Your task to perform on an android device: manage bookmarks in the chrome app Image 0: 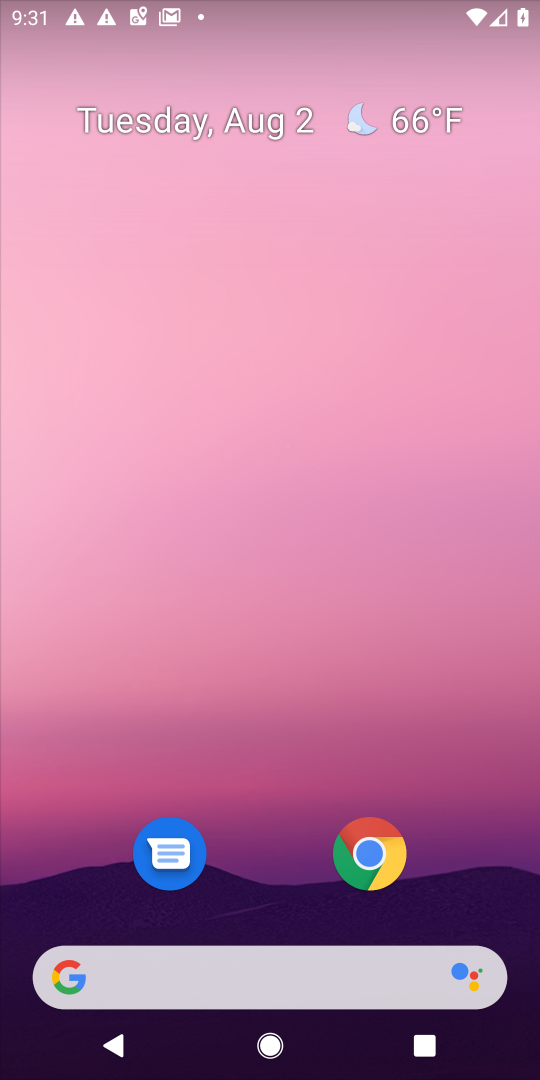
Step 0: press back button
Your task to perform on an android device: manage bookmarks in the chrome app Image 1: 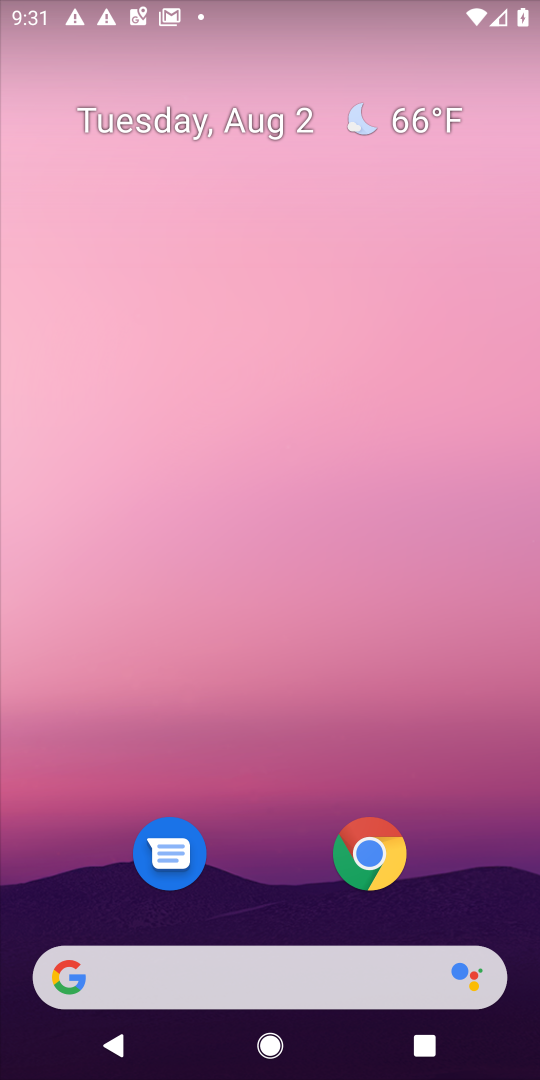
Step 1: drag from (287, 887) to (258, 37)
Your task to perform on an android device: manage bookmarks in the chrome app Image 2: 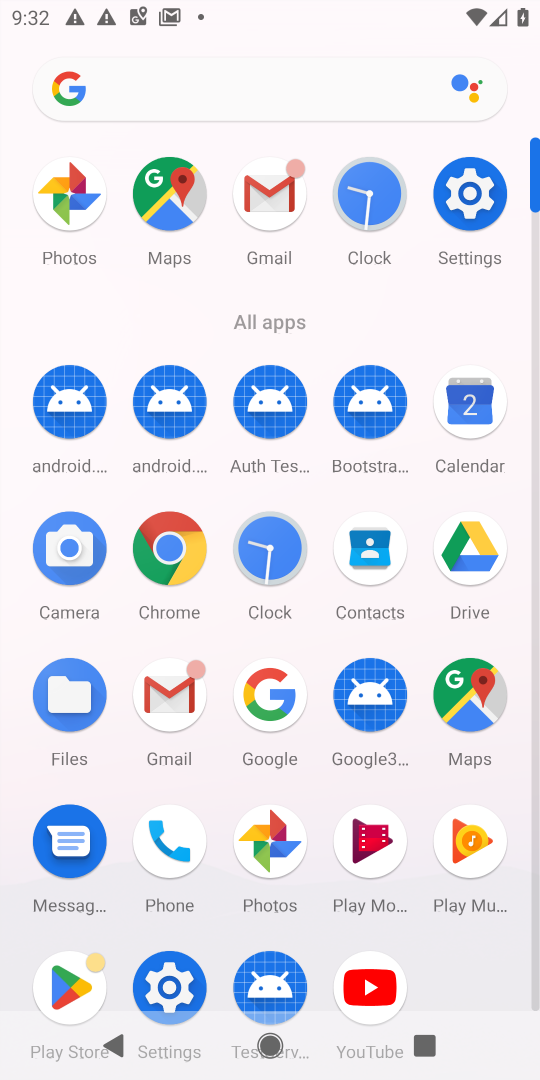
Step 2: click (153, 566)
Your task to perform on an android device: manage bookmarks in the chrome app Image 3: 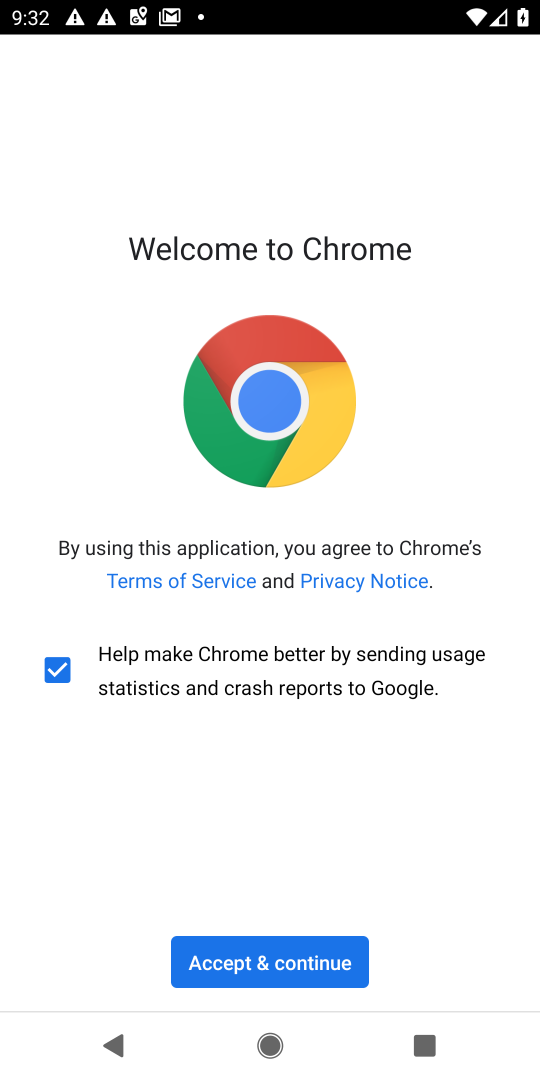
Step 3: click (330, 957)
Your task to perform on an android device: manage bookmarks in the chrome app Image 4: 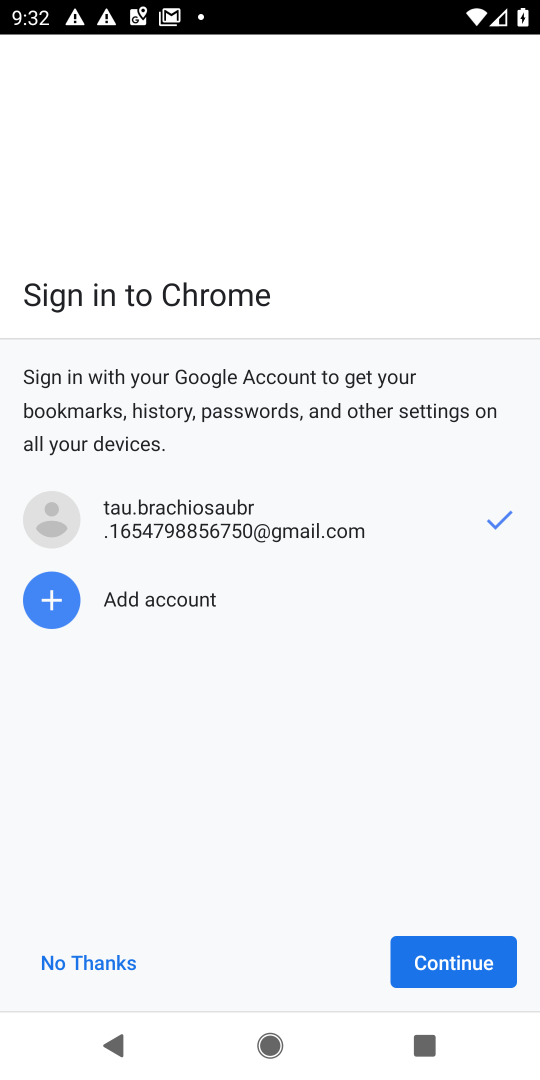
Step 4: click (420, 956)
Your task to perform on an android device: manage bookmarks in the chrome app Image 5: 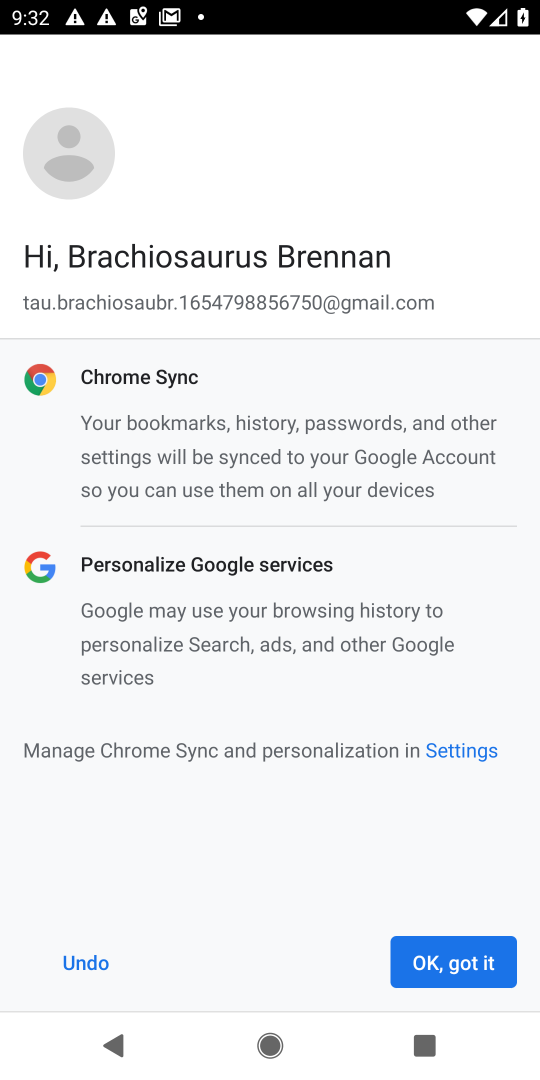
Step 5: click (495, 953)
Your task to perform on an android device: manage bookmarks in the chrome app Image 6: 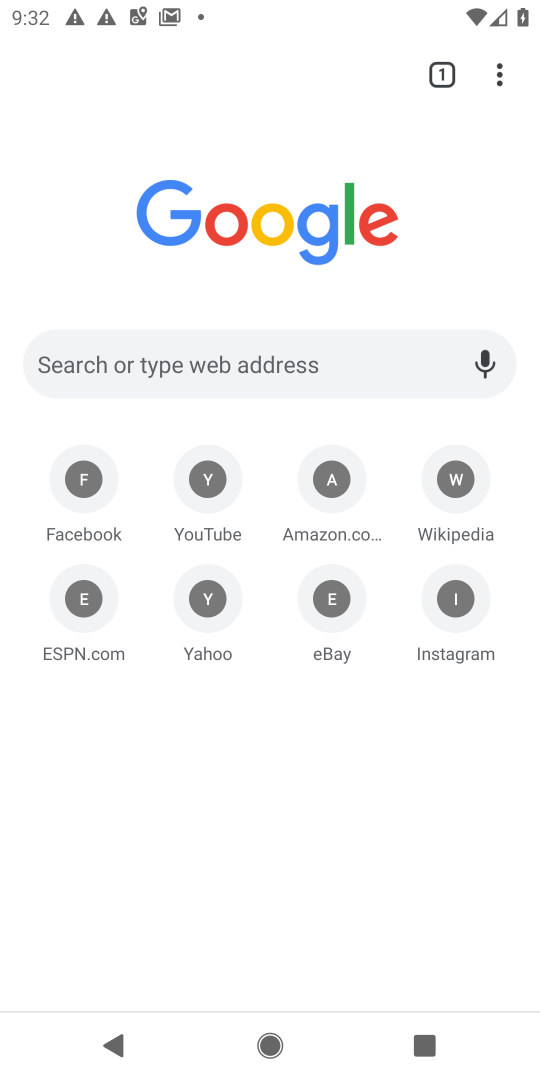
Step 6: drag from (494, 80) to (242, 282)
Your task to perform on an android device: manage bookmarks in the chrome app Image 7: 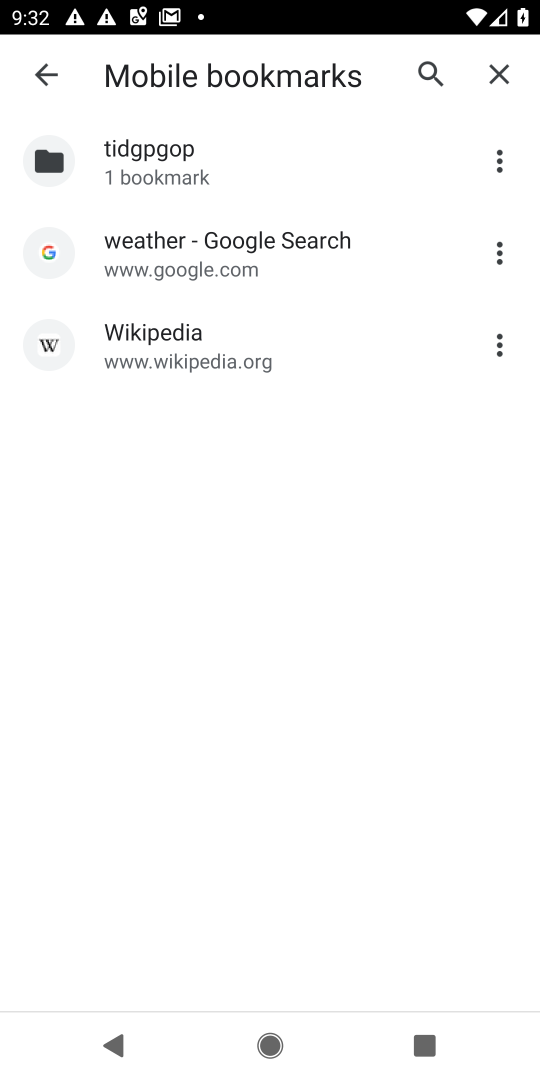
Step 7: click (501, 247)
Your task to perform on an android device: manage bookmarks in the chrome app Image 8: 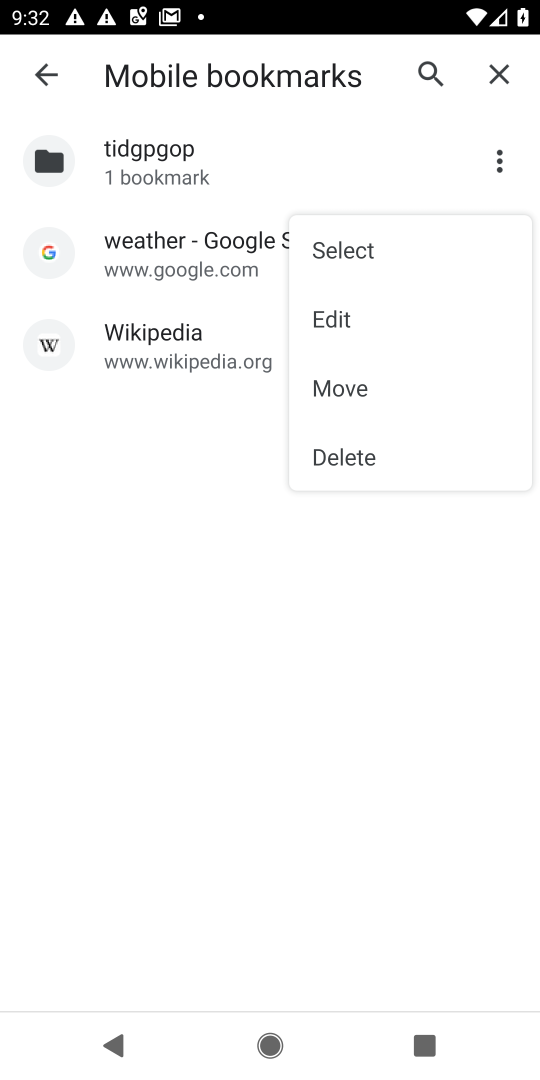
Step 8: click (350, 308)
Your task to perform on an android device: manage bookmarks in the chrome app Image 9: 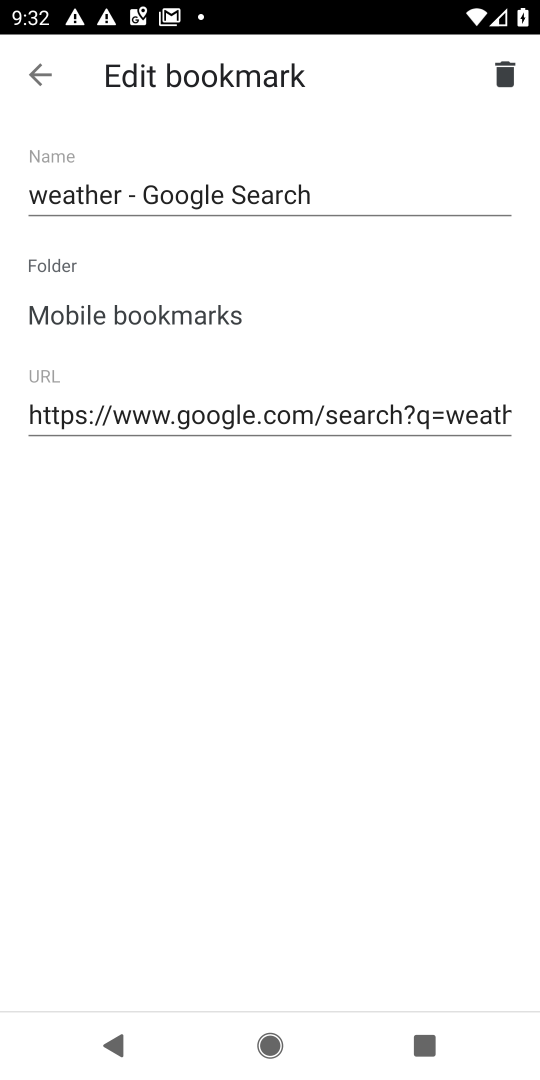
Step 9: task complete